Your task to perform on an android device: Open network settings Image 0: 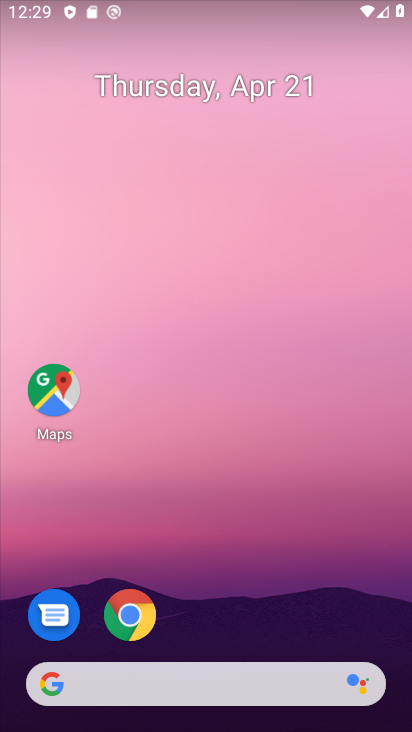
Step 0: drag from (262, 563) to (246, 57)
Your task to perform on an android device: Open network settings Image 1: 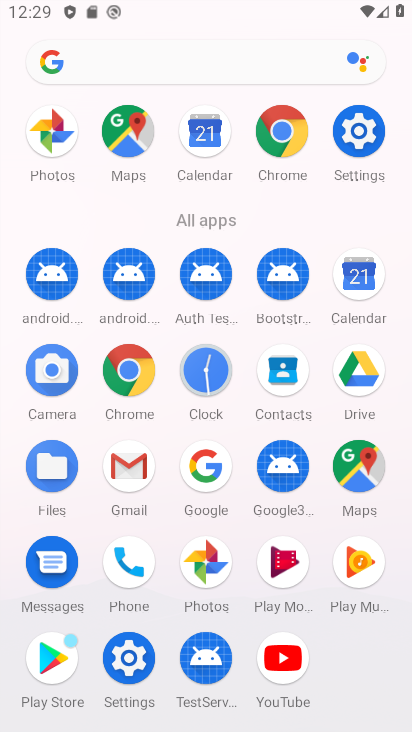
Step 1: click (371, 140)
Your task to perform on an android device: Open network settings Image 2: 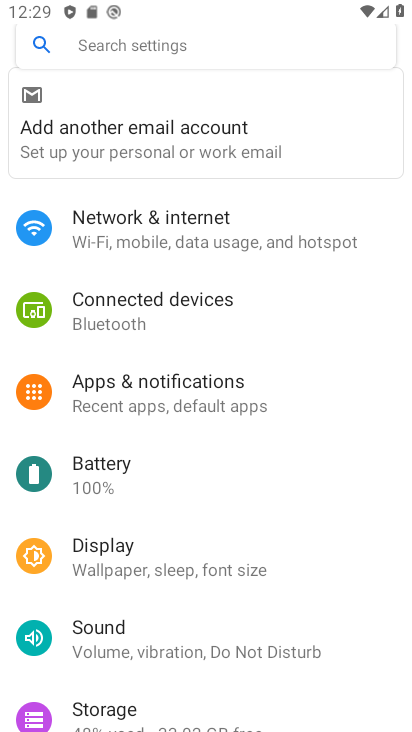
Step 2: click (202, 631)
Your task to perform on an android device: Open network settings Image 3: 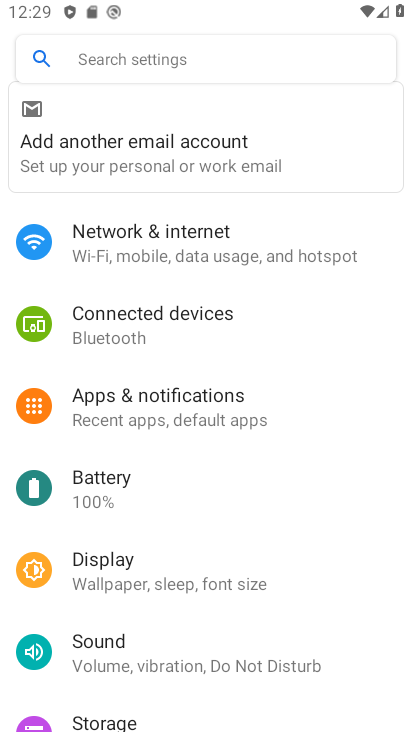
Step 3: click (287, 240)
Your task to perform on an android device: Open network settings Image 4: 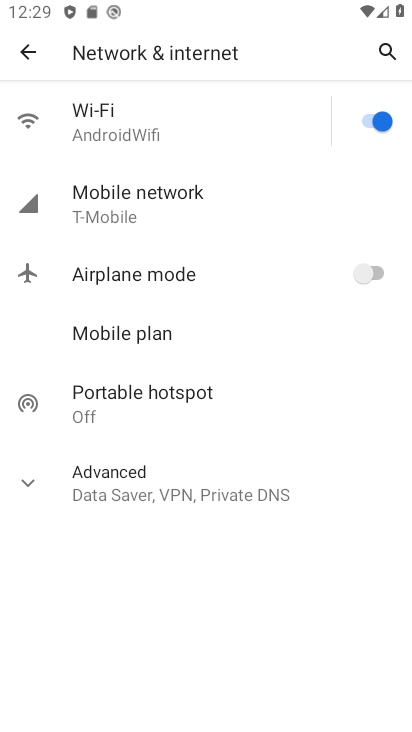
Step 4: task complete